Your task to perform on an android device: find which apps use the phone's location Image 0: 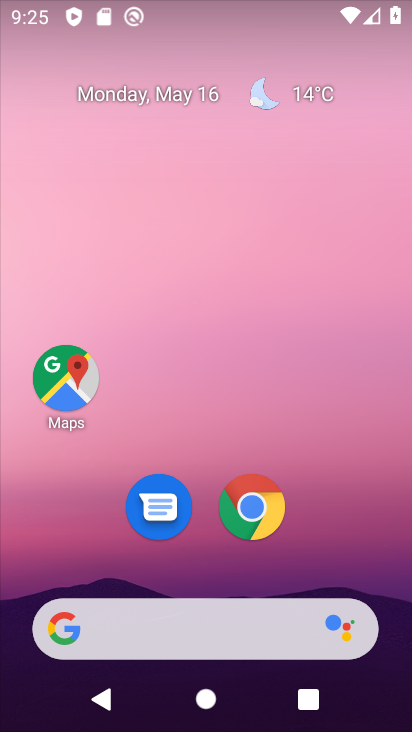
Step 0: drag from (93, 586) to (221, 31)
Your task to perform on an android device: find which apps use the phone's location Image 1: 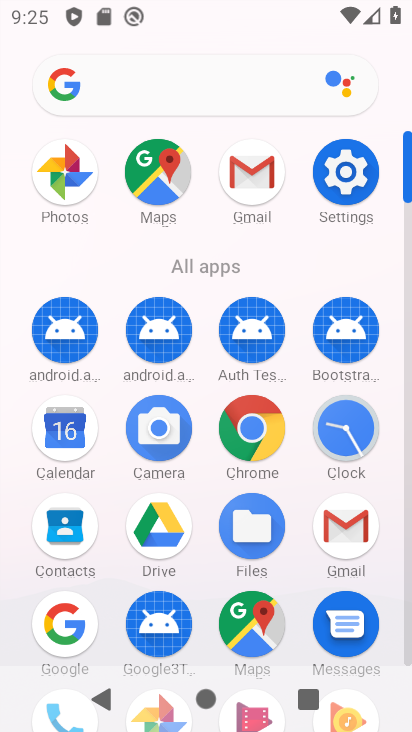
Step 1: drag from (167, 656) to (252, 358)
Your task to perform on an android device: find which apps use the phone's location Image 2: 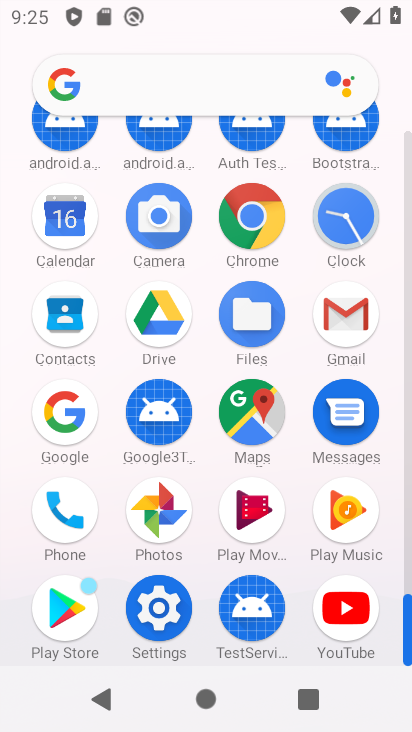
Step 2: click (151, 618)
Your task to perform on an android device: find which apps use the phone's location Image 3: 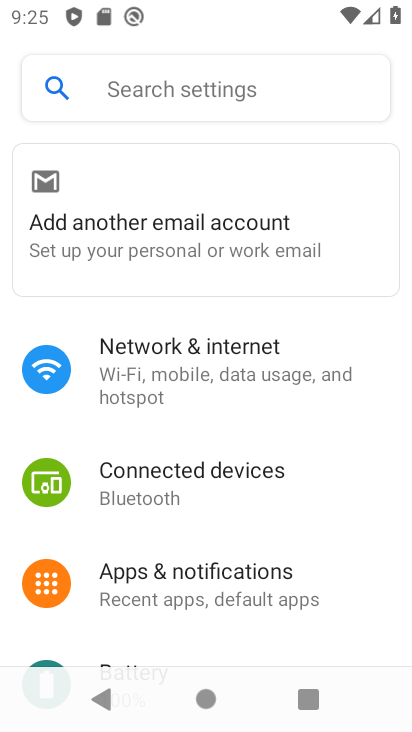
Step 3: drag from (142, 533) to (263, 157)
Your task to perform on an android device: find which apps use the phone's location Image 4: 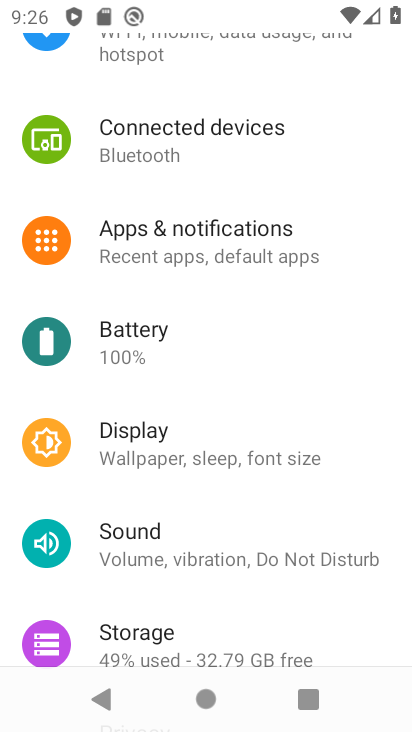
Step 4: drag from (174, 619) to (262, 294)
Your task to perform on an android device: find which apps use the phone's location Image 5: 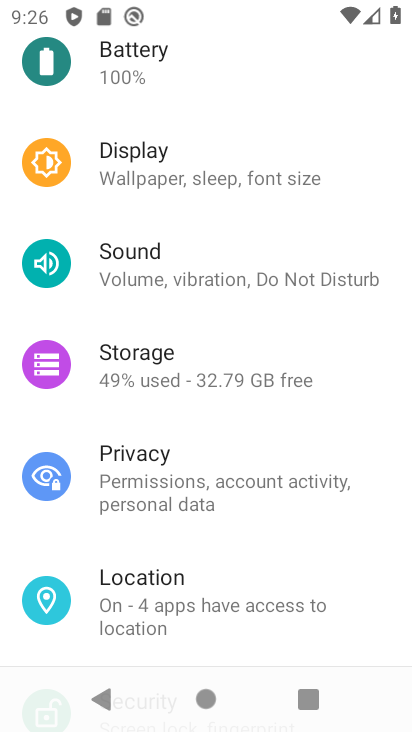
Step 5: click (161, 594)
Your task to perform on an android device: find which apps use the phone's location Image 6: 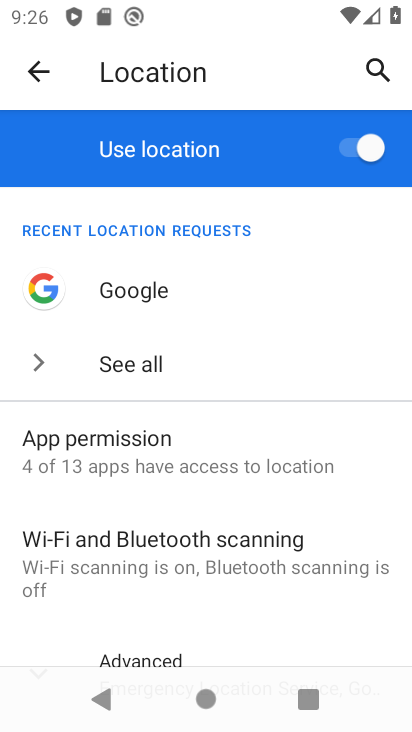
Step 6: click (164, 444)
Your task to perform on an android device: find which apps use the phone's location Image 7: 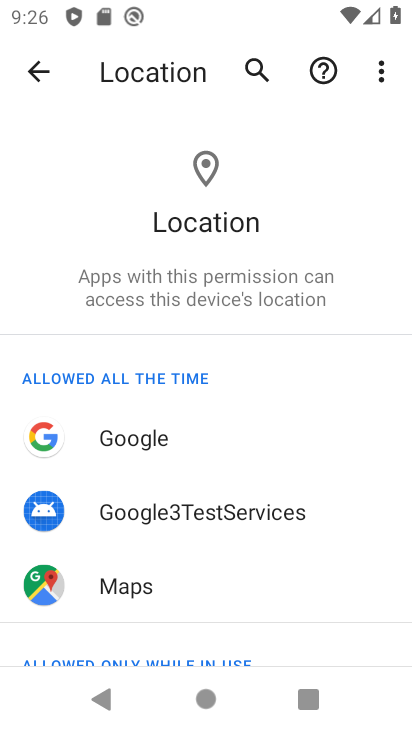
Step 7: task complete